Your task to perform on an android device: change the clock display to analog Image 0: 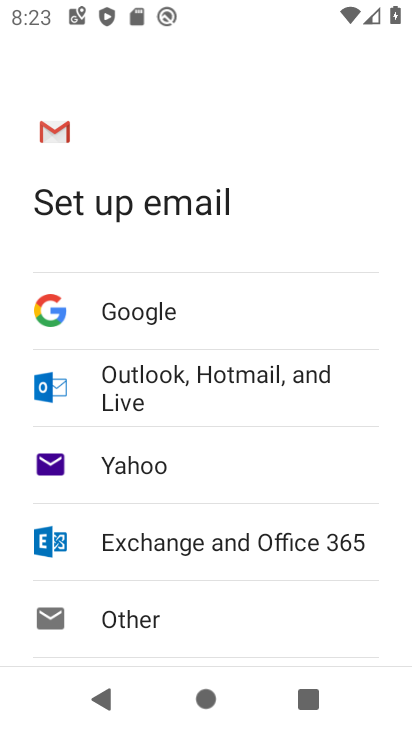
Step 0: press home button
Your task to perform on an android device: change the clock display to analog Image 1: 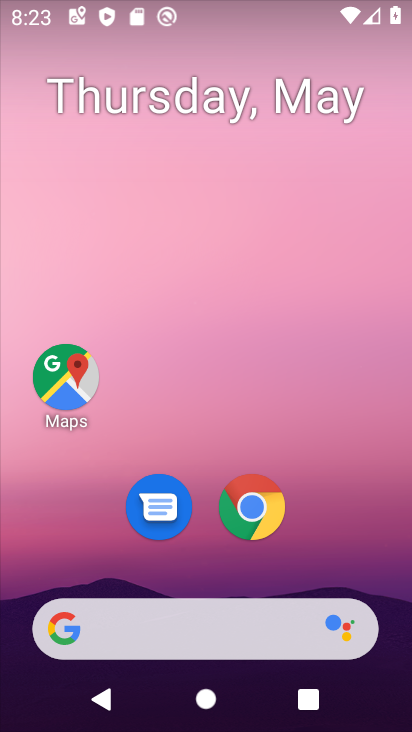
Step 1: drag from (382, 553) to (353, 180)
Your task to perform on an android device: change the clock display to analog Image 2: 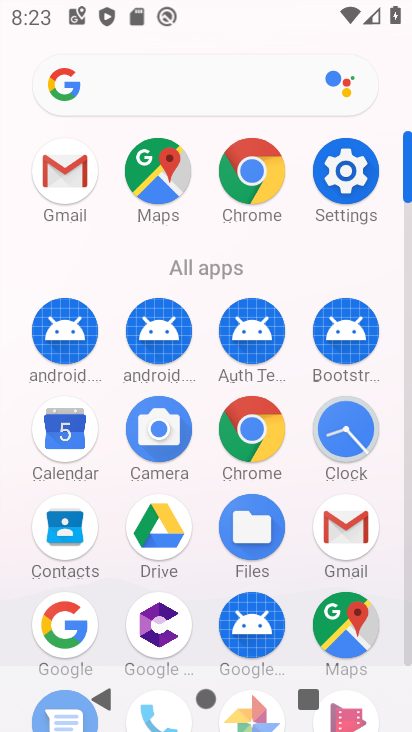
Step 2: click (343, 448)
Your task to perform on an android device: change the clock display to analog Image 3: 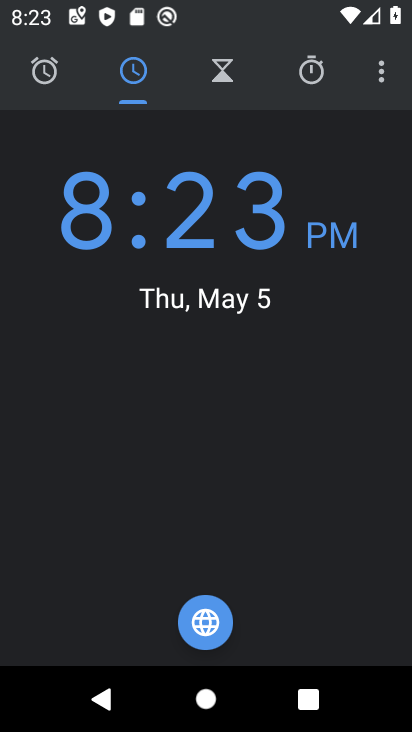
Step 3: click (381, 80)
Your task to perform on an android device: change the clock display to analog Image 4: 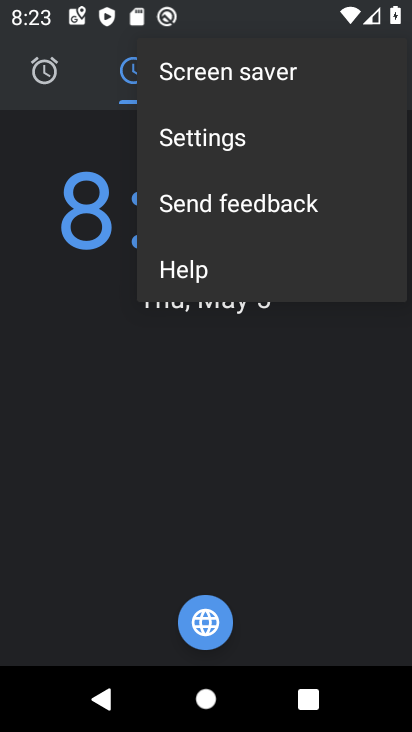
Step 4: click (217, 141)
Your task to perform on an android device: change the clock display to analog Image 5: 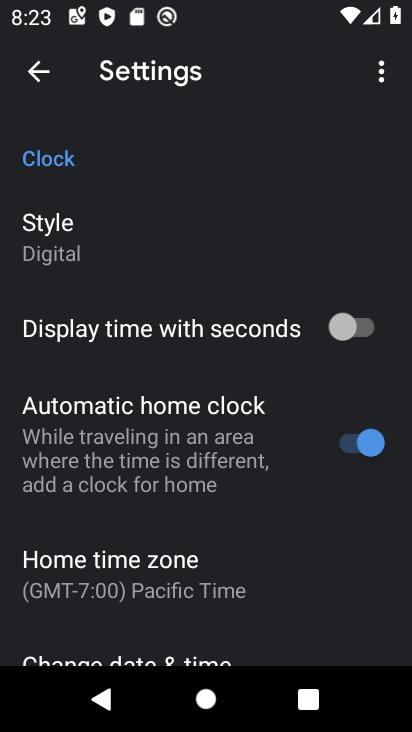
Step 5: click (73, 247)
Your task to perform on an android device: change the clock display to analog Image 6: 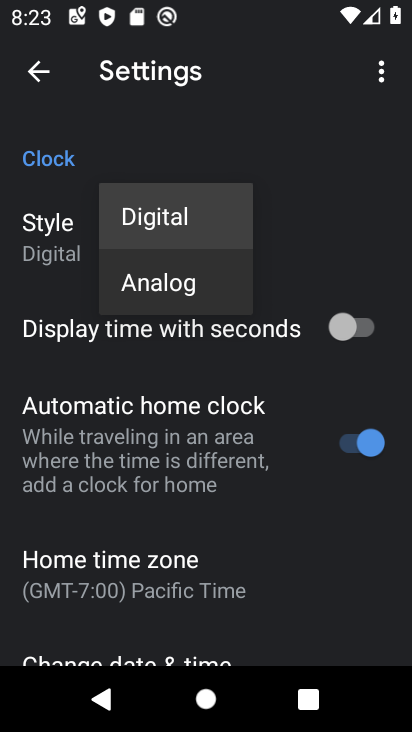
Step 6: click (146, 289)
Your task to perform on an android device: change the clock display to analog Image 7: 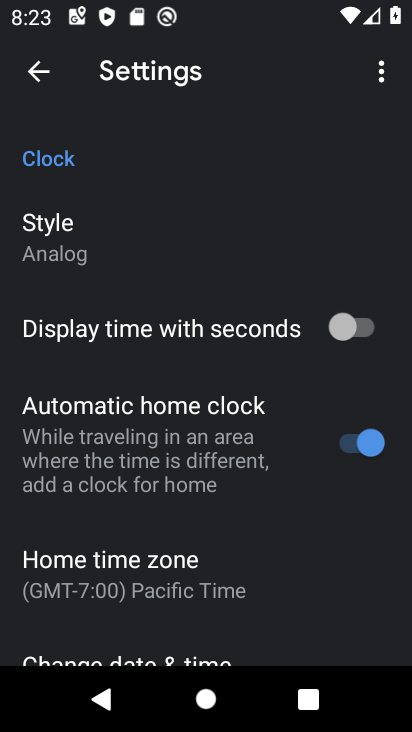
Step 7: task complete